Your task to perform on an android device: find photos in the google photos app Image 0: 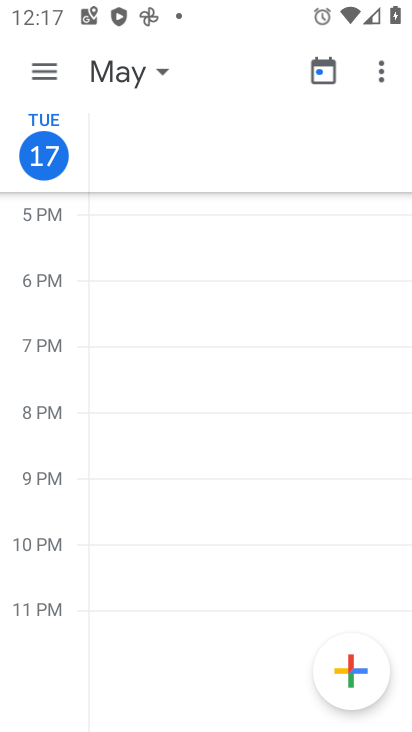
Step 0: press home button
Your task to perform on an android device: find photos in the google photos app Image 1: 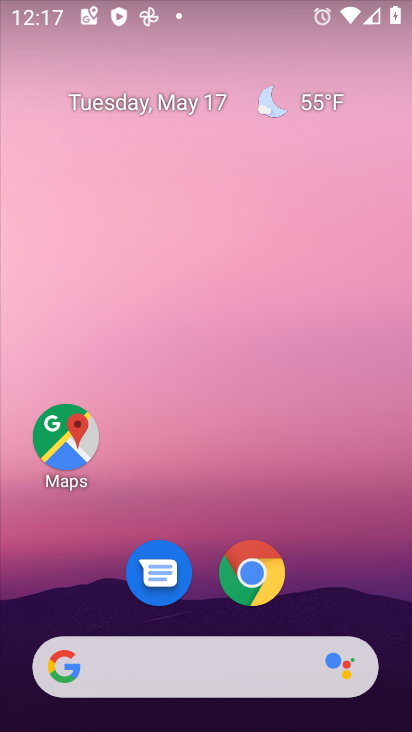
Step 1: drag from (400, 532) to (269, 37)
Your task to perform on an android device: find photos in the google photos app Image 2: 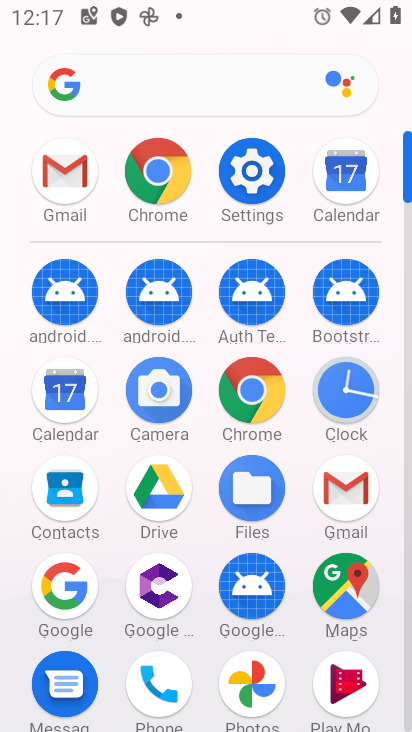
Step 2: click (247, 672)
Your task to perform on an android device: find photos in the google photos app Image 3: 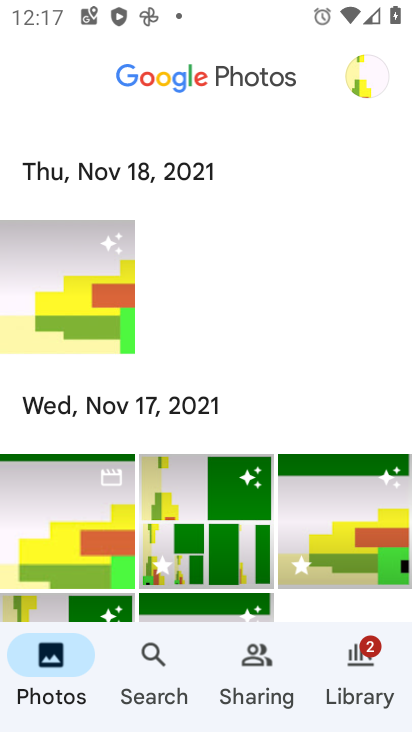
Step 3: task complete